Your task to perform on an android device: Do I have any events today? Image 0: 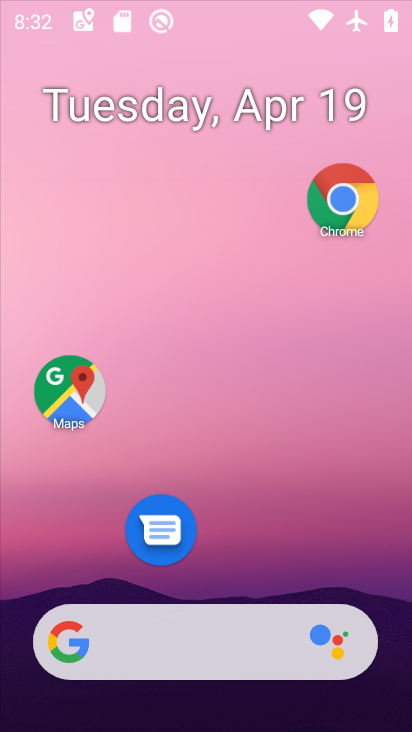
Step 0: click (303, 54)
Your task to perform on an android device: Do I have any events today? Image 1: 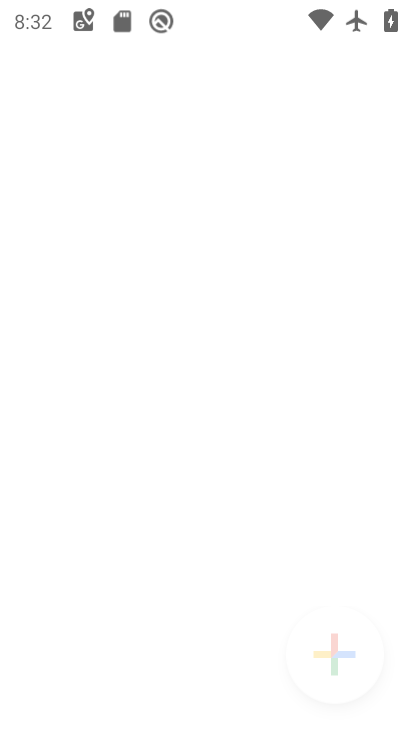
Step 1: drag from (234, 539) to (263, 279)
Your task to perform on an android device: Do I have any events today? Image 2: 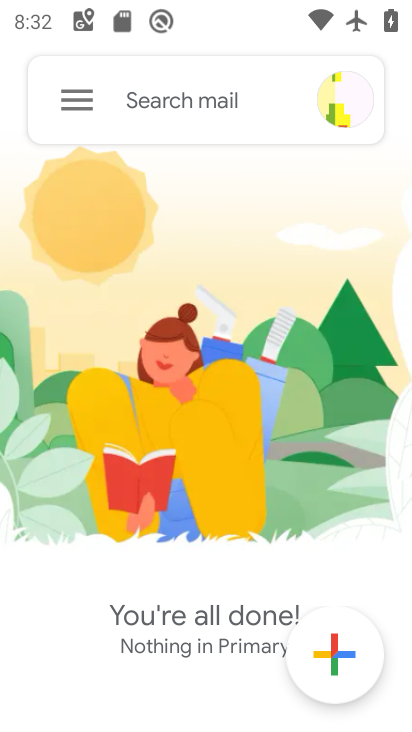
Step 2: press home button
Your task to perform on an android device: Do I have any events today? Image 3: 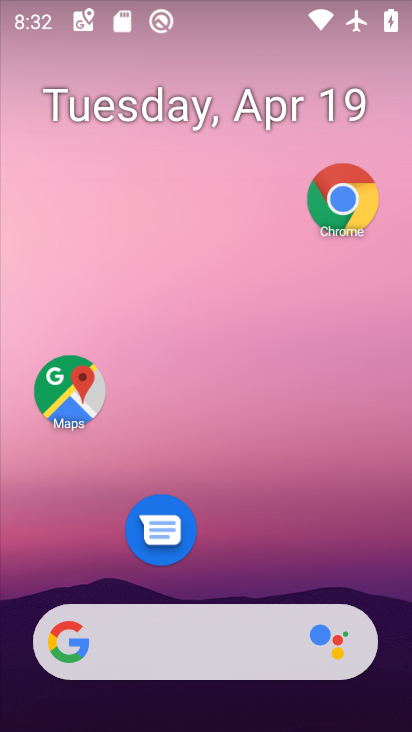
Step 3: drag from (221, 445) to (295, 69)
Your task to perform on an android device: Do I have any events today? Image 4: 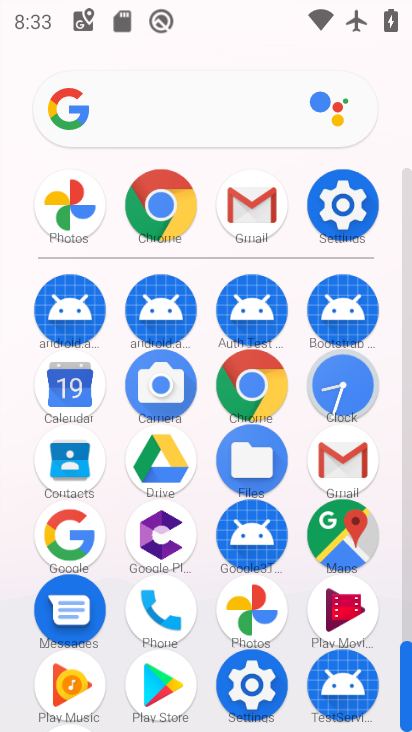
Step 4: click (60, 381)
Your task to perform on an android device: Do I have any events today? Image 5: 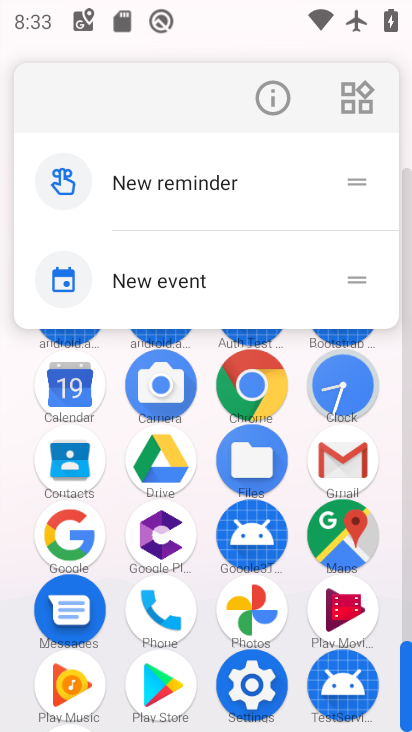
Step 5: click (272, 98)
Your task to perform on an android device: Do I have any events today? Image 6: 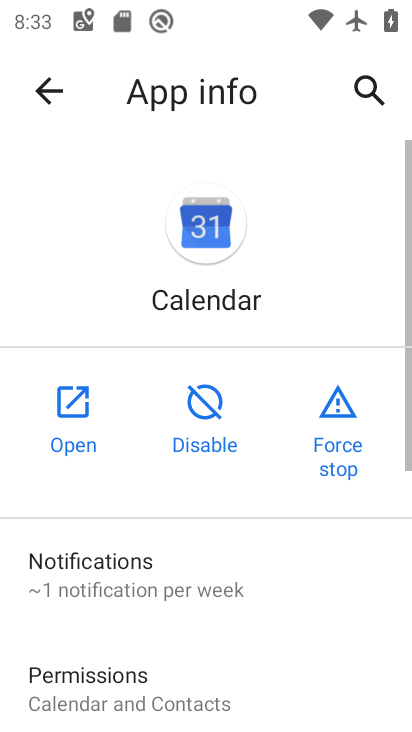
Step 6: click (76, 406)
Your task to perform on an android device: Do I have any events today? Image 7: 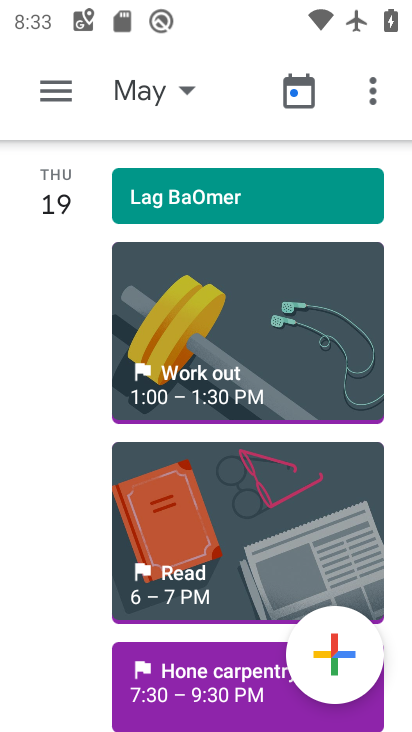
Step 7: click (162, 91)
Your task to perform on an android device: Do I have any events today? Image 8: 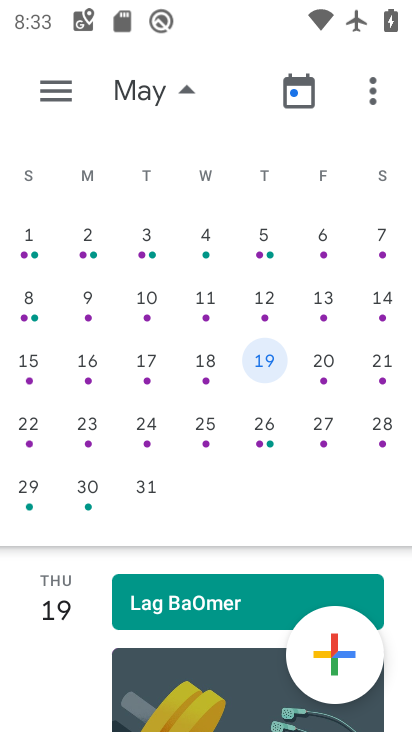
Step 8: drag from (51, 311) to (402, 363)
Your task to perform on an android device: Do I have any events today? Image 9: 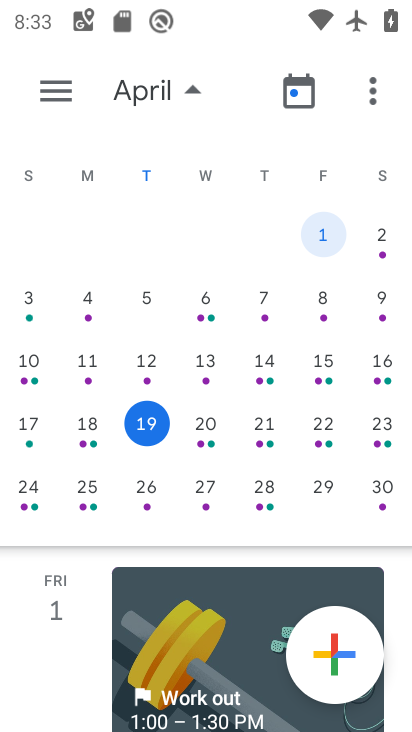
Step 9: click (150, 418)
Your task to perform on an android device: Do I have any events today? Image 10: 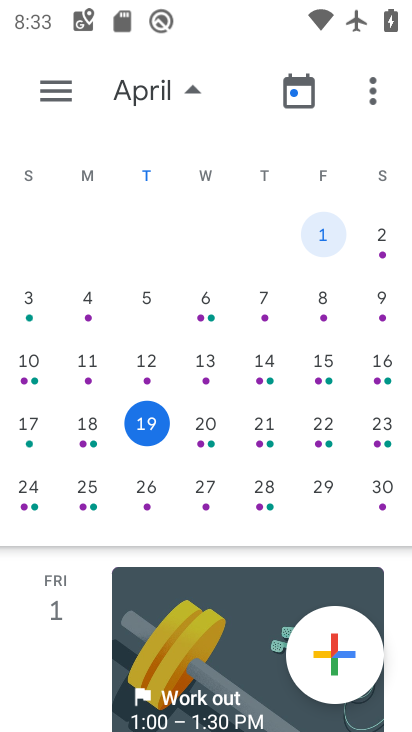
Step 10: click (140, 425)
Your task to perform on an android device: Do I have any events today? Image 11: 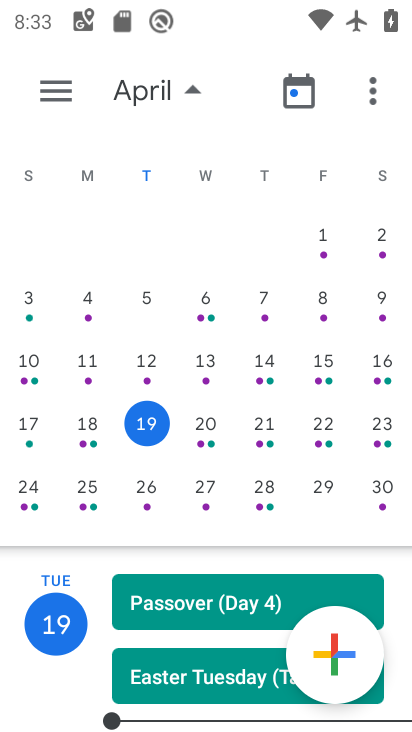
Step 11: click (147, 432)
Your task to perform on an android device: Do I have any events today? Image 12: 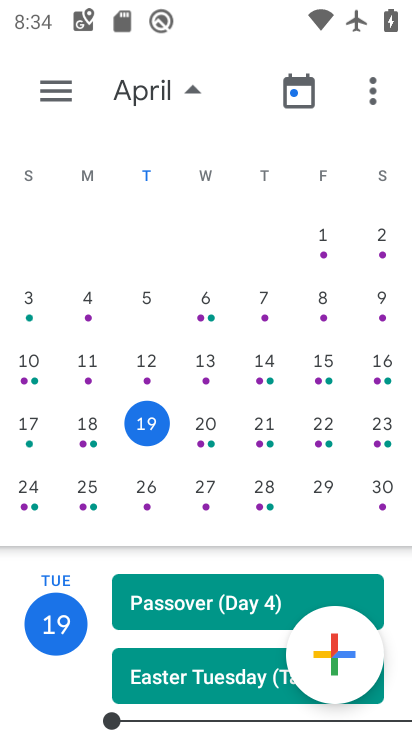
Step 12: click (142, 435)
Your task to perform on an android device: Do I have any events today? Image 13: 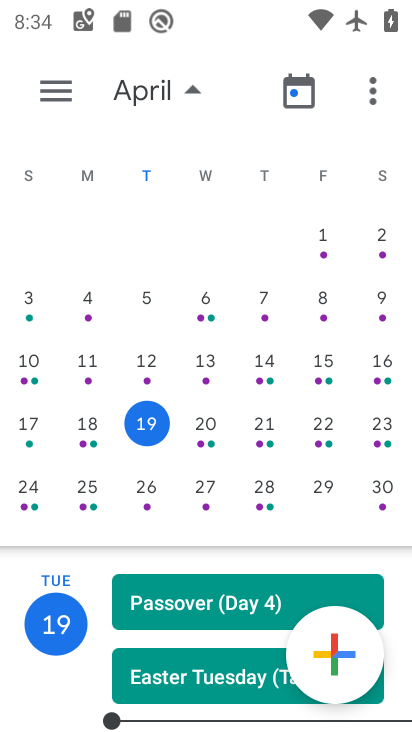
Step 13: task complete